Your task to perform on an android device: uninstall "Google Play Games" Image 0: 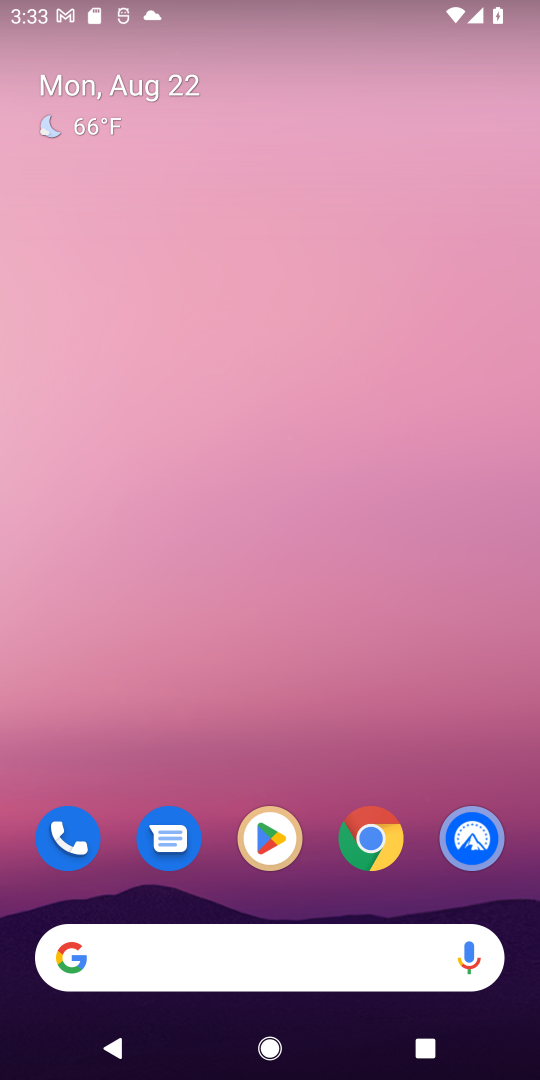
Step 0: click (267, 846)
Your task to perform on an android device: uninstall "Google Play Games" Image 1: 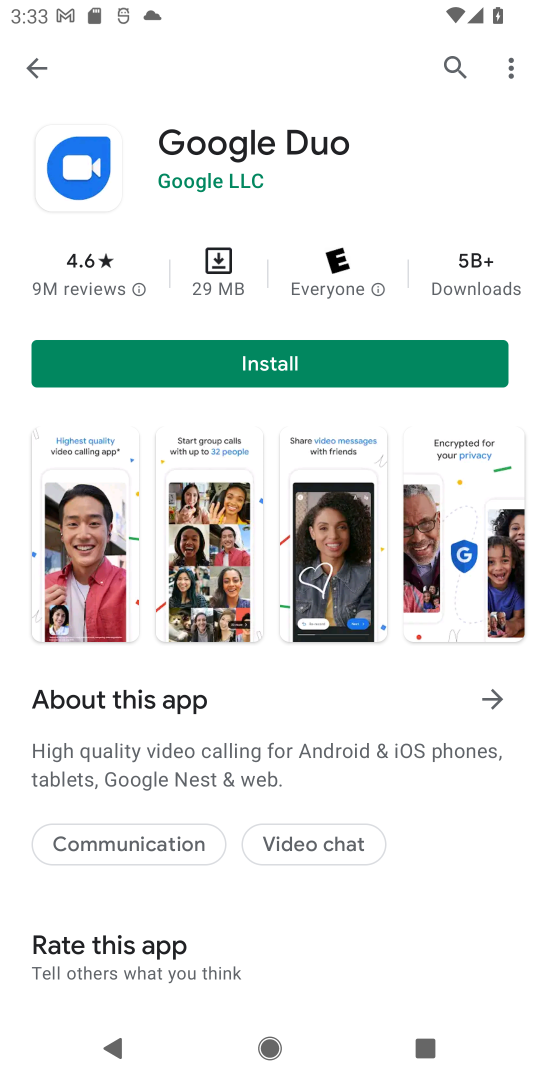
Step 1: click (452, 57)
Your task to perform on an android device: uninstall "Google Play Games" Image 2: 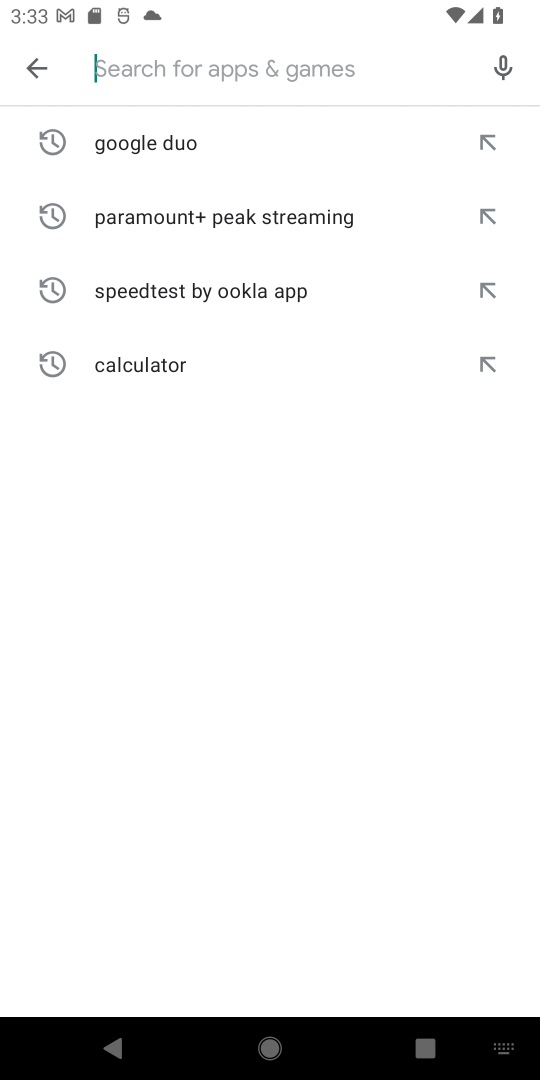
Step 2: click (212, 78)
Your task to perform on an android device: uninstall "Google Play Games" Image 3: 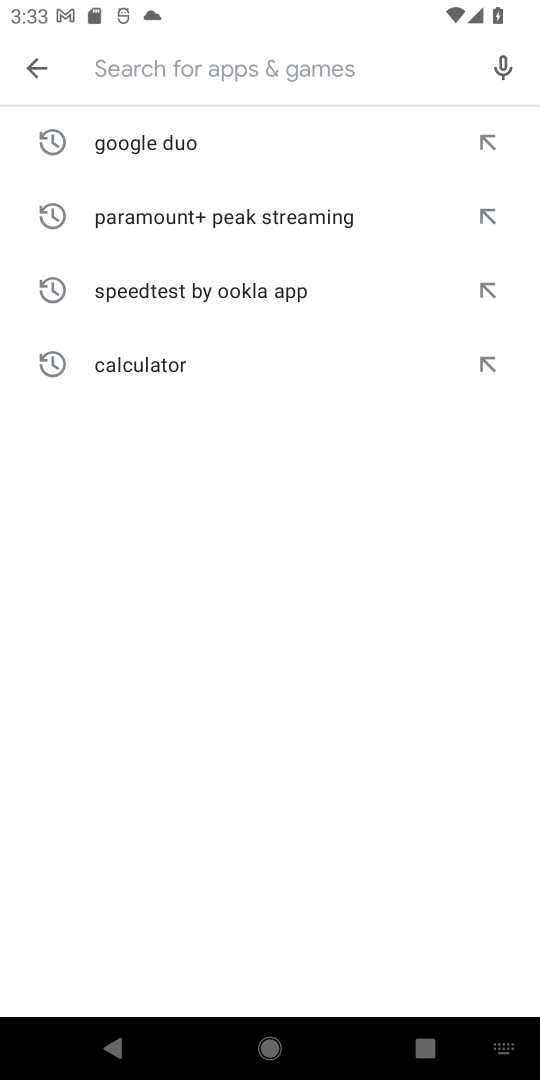
Step 3: click (249, 71)
Your task to perform on an android device: uninstall "Google Play Games" Image 4: 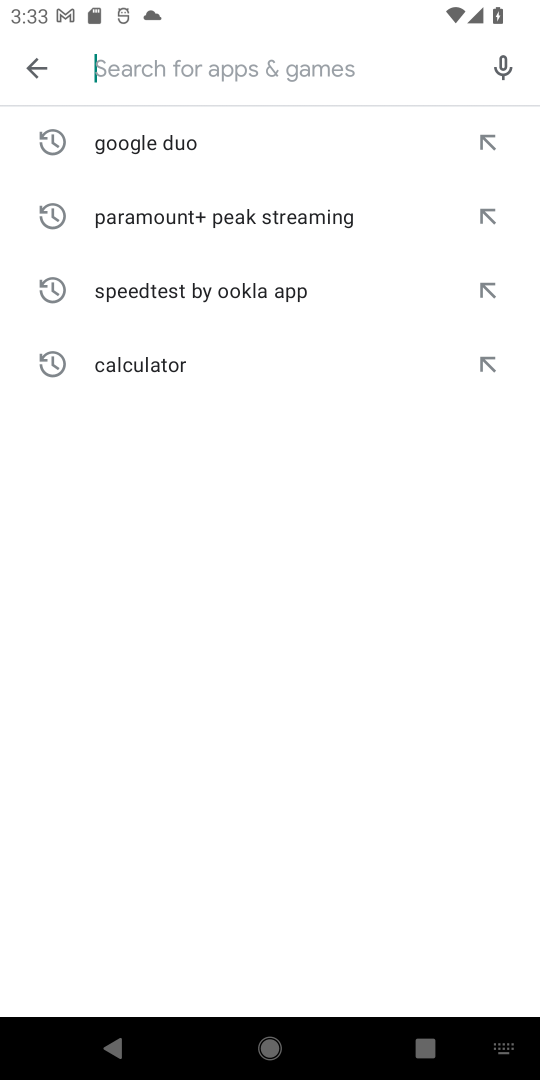
Step 4: type "Google Play Games"
Your task to perform on an android device: uninstall "Google Play Games" Image 5: 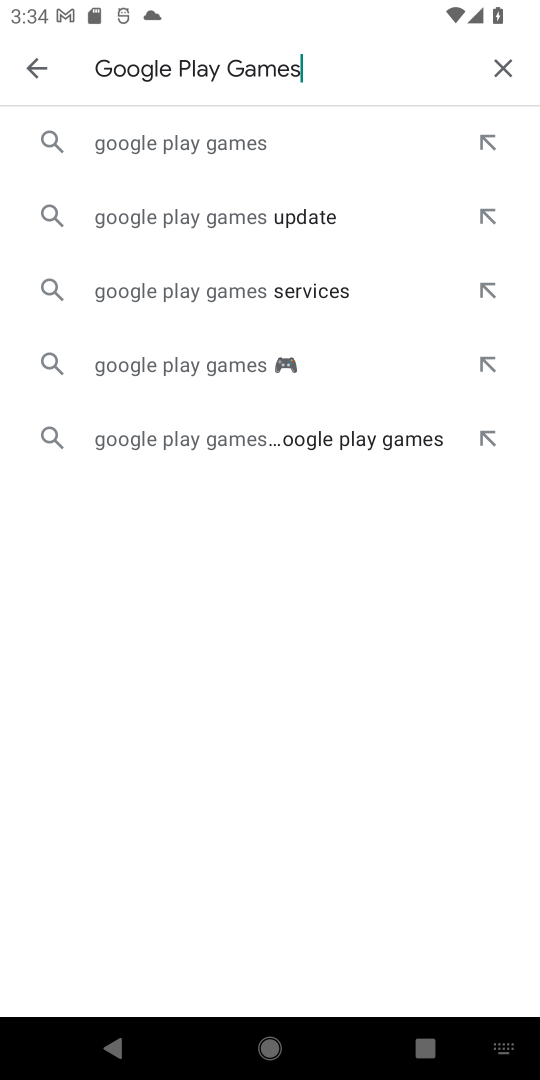
Step 5: click (246, 154)
Your task to perform on an android device: uninstall "Google Play Games" Image 6: 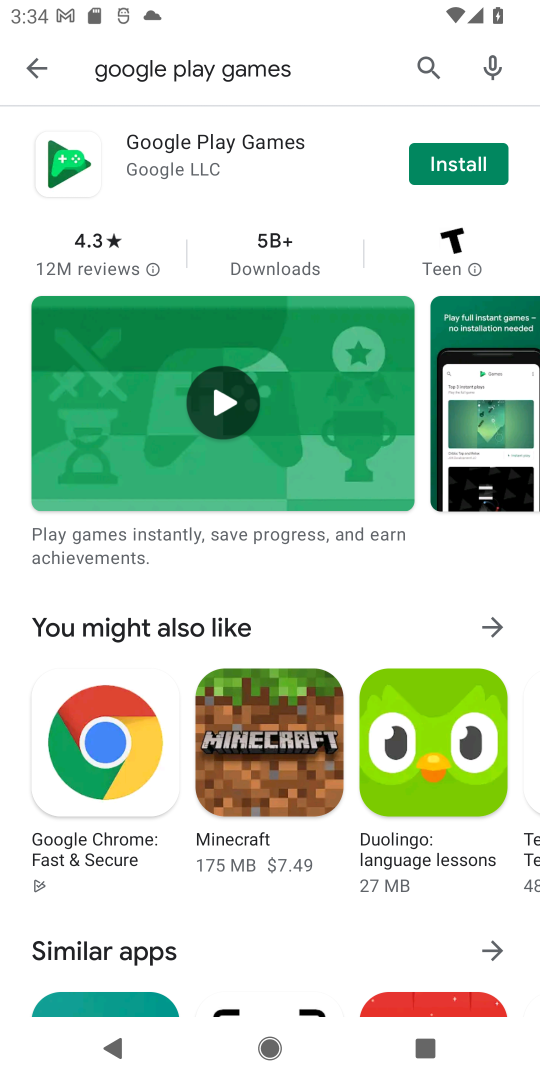
Step 6: click (246, 154)
Your task to perform on an android device: uninstall "Google Play Games" Image 7: 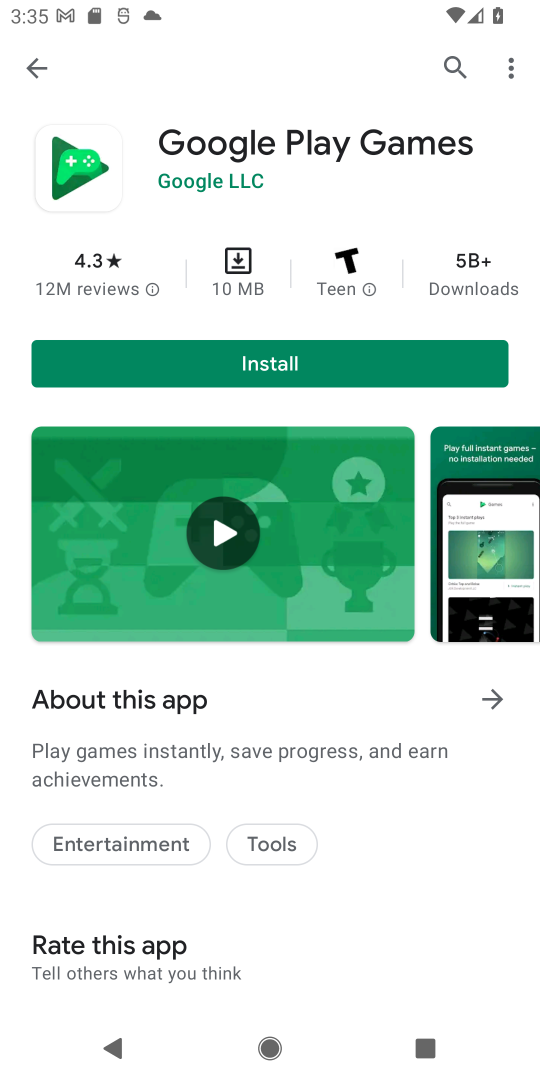
Step 7: task complete